Your task to perform on an android device: add a contact in the contacts app Image 0: 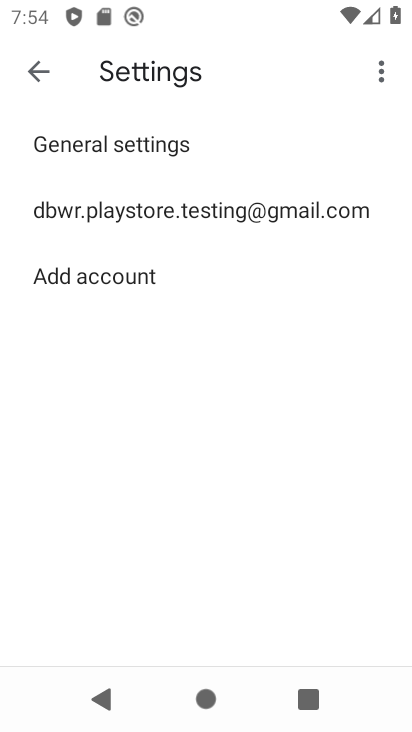
Step 0: press home button
Your task to perform on an android device: add a contact in the contacts app Image 1: 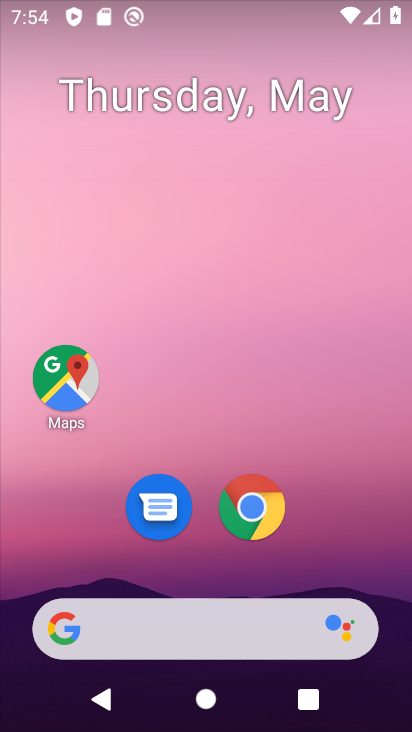
Step 1: drag from (353, 544) to (252, 192)
Your task to perform on an android device: add a contact in the contacts app Image 2: 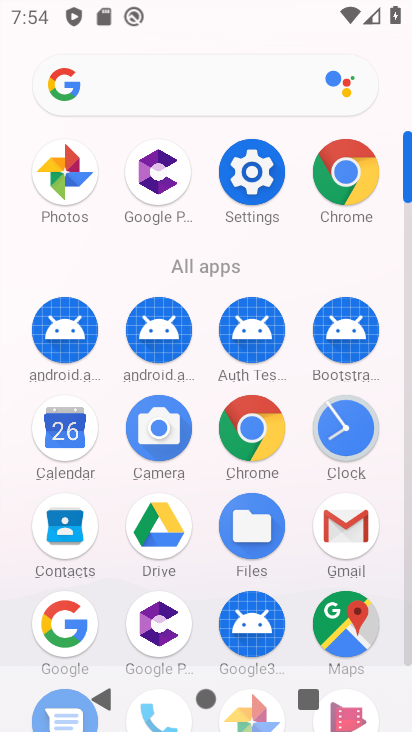
Step 2: click (80, 530)
Your task to perform on an android device: add a contact in the contacts app Image 3: 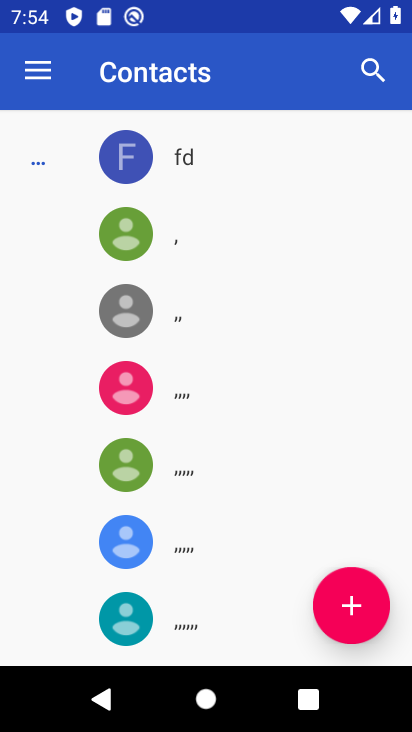
Step 3: click (346, 586)
Your task to perform on an android device: add a contact in the contacts app Image 4: 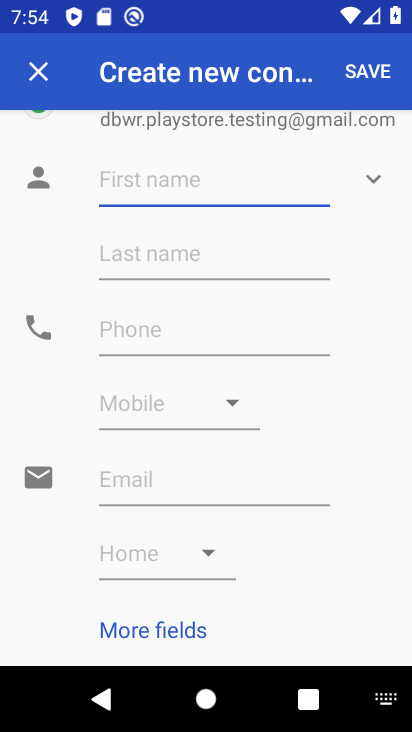
Step 4: type "ghgkhhjgk"
Your task to perform on an android device: add a contact in the contacts app Image 5: 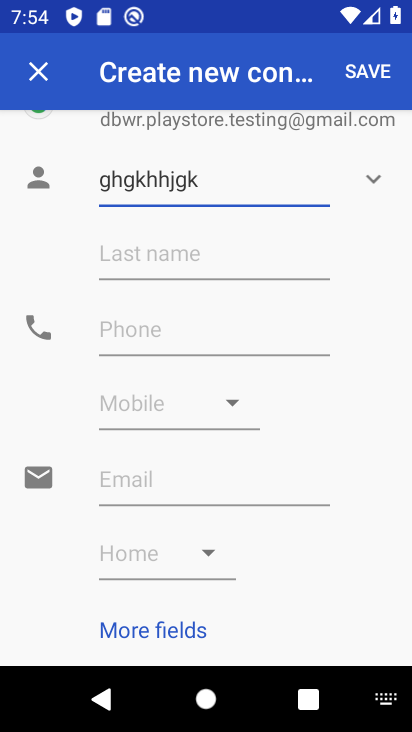
Step 5: click (186, 331)
Your task to perform on an android device: add a contact in the contacts app Image 6: 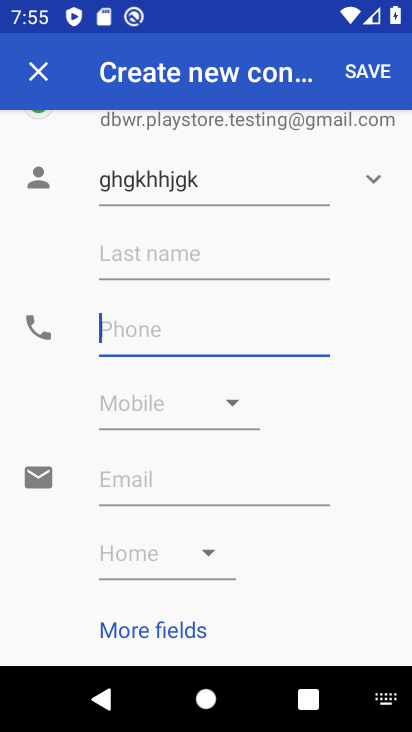
Step 6: type "76898989"
Your task to perform on an android device: add a contact in the contacts app Image 7: 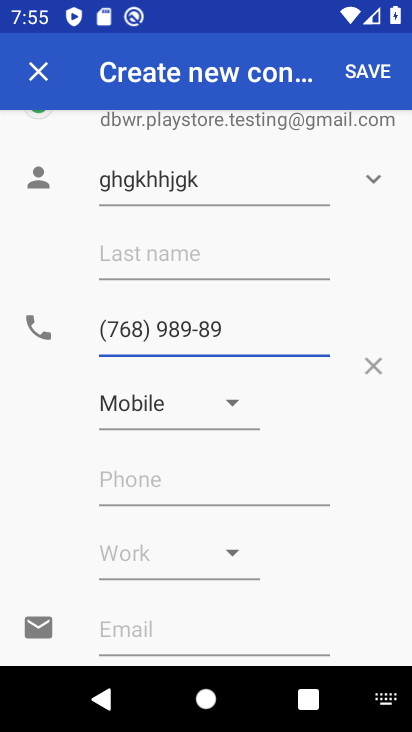
Step 7: click (359, 69)
Your task to perform on an android device: add a contact in the contacts app Image 8: 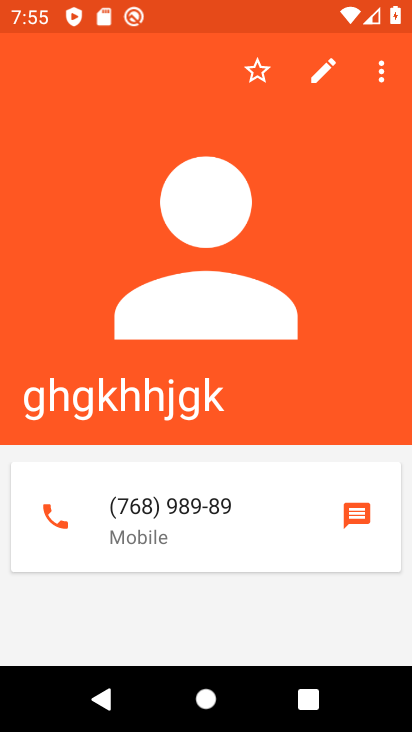
Step 8: task complete